Your task to perform on an android device: Search for vegetarian restaurants on Maps Image 0: 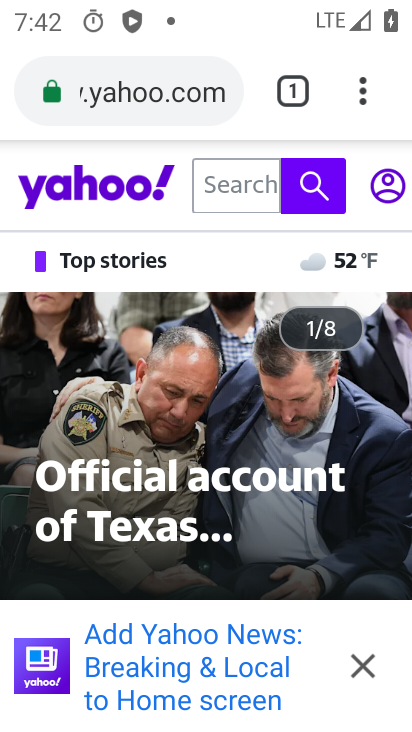
Step 0: press home button
Your task to perform on an android device: Search for vegetarian restaurants on Maps Image 1: 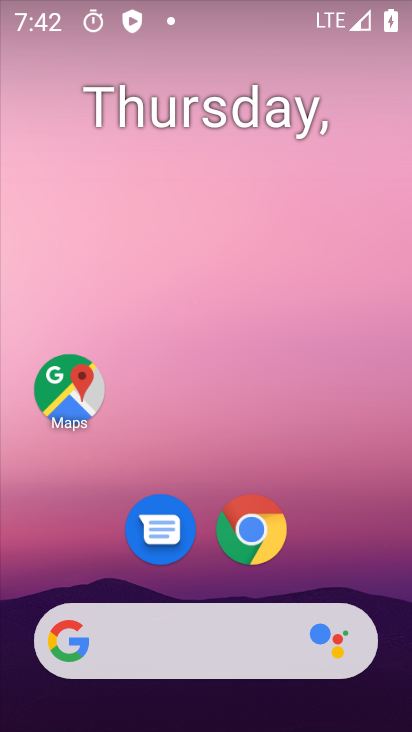
Step 1: drag from (390, 226) to (373, 55)
Your task to perform on an android device: Search for vegetarian restaurants on Maps Image 2: 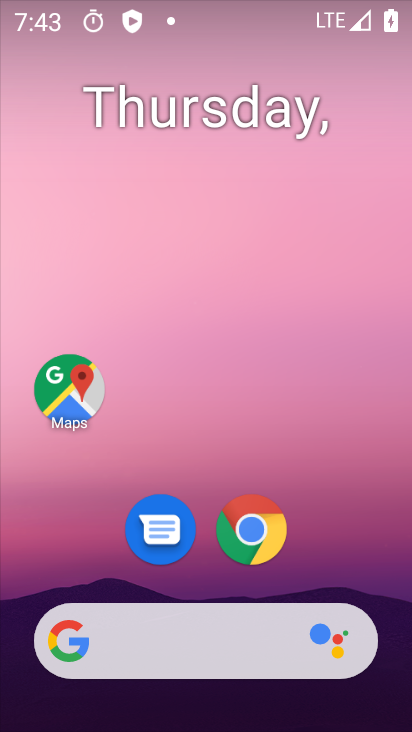
Step 2: drag from (357, 549) to (358, 78)
Your task to perform on an android device: Search for vegetarian restaurants on Maps Image 3: 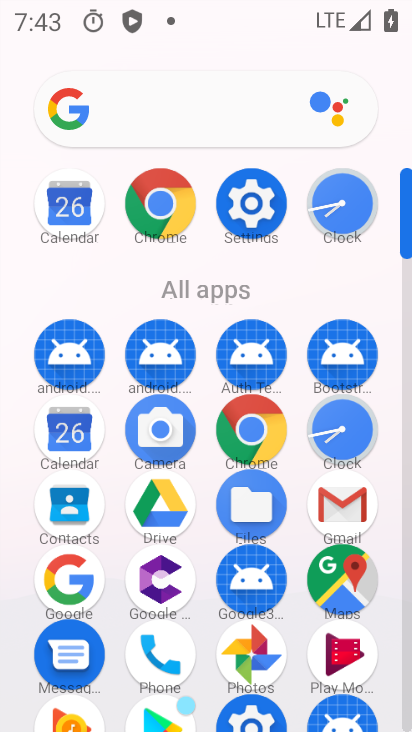
Step 3: click (351, 594)
Your task to perform on an android device: Search for vegetarian restaurants on Maps Image 4: 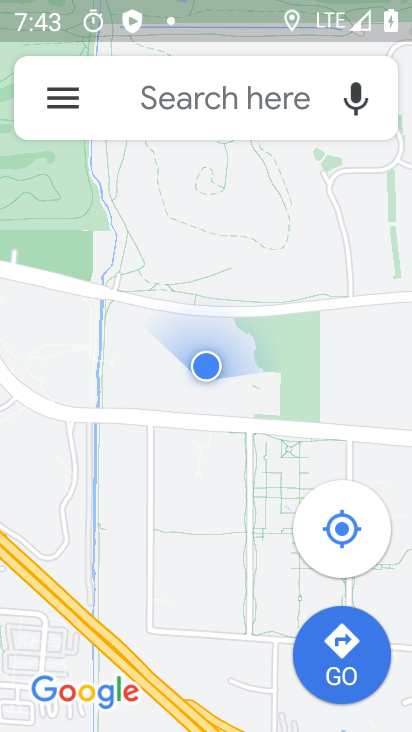
Step 4: click (161, 110)
Your task to perform on an android device: Search for vegetarian restaurants on Maps Image 5: 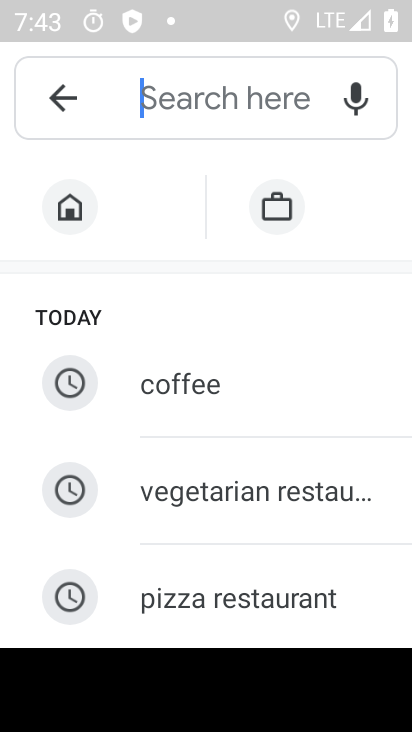
Step 5: type "vegetrain restaurants"
Your task to perform on an android device: Search for vegetarian restaurants on Maps Image 6: 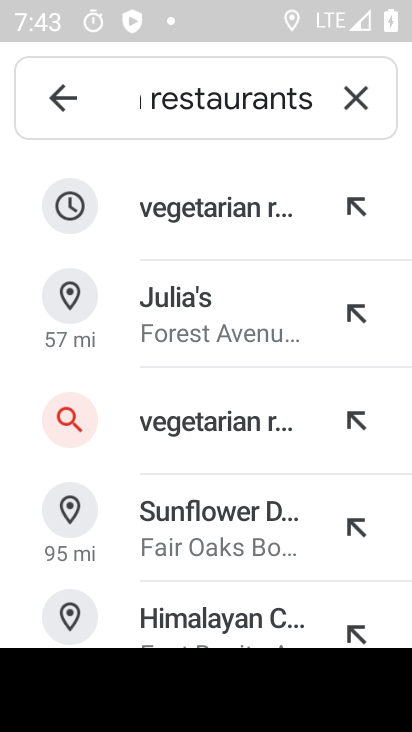
Step 6: click (260, 227)
Your task to perform on an android device: Search for vegetarian restaurants on Maps Image 7: 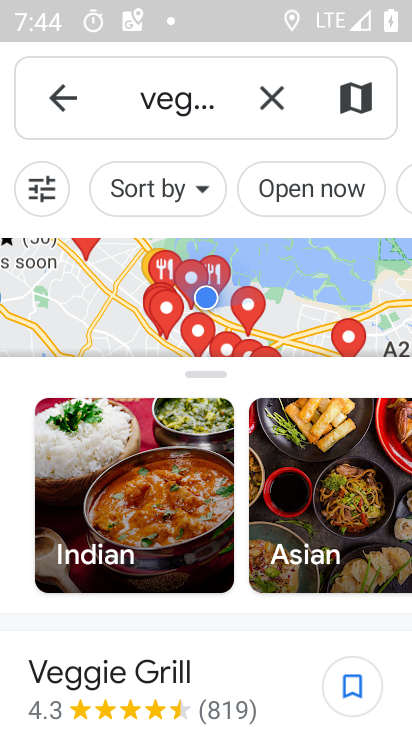
Step 7: task complete